Your task to perform on an android device: change notifications settings Image 0: 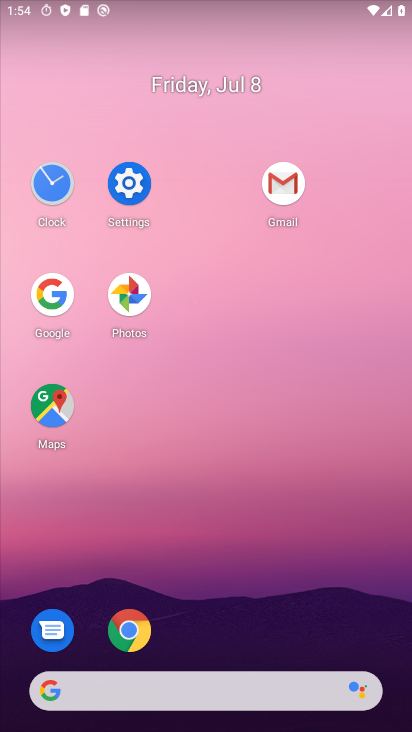
Step 0: click (122, 179)
Your task to perform on an android device: change notifications settings Image 1: 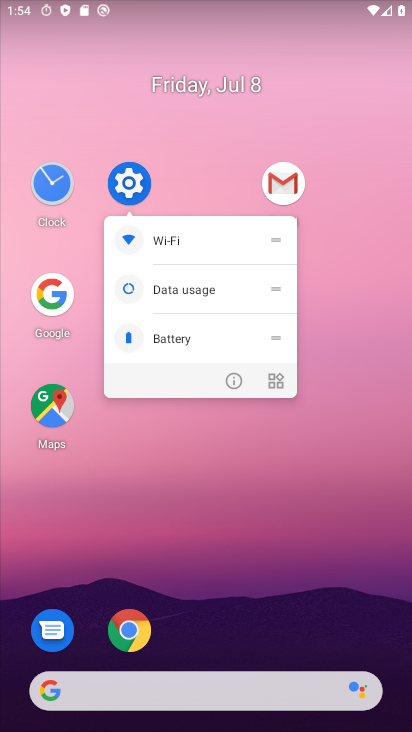
Step 1: click (131, 175)
Your task to perform on an android device: change notifications settings Image 2: 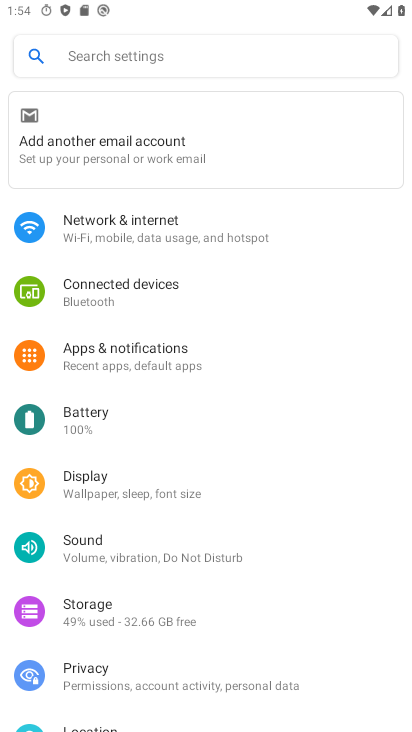
Step 2: click (224, 350)
Your task to perform on an android device: change notifications settings Image 3: 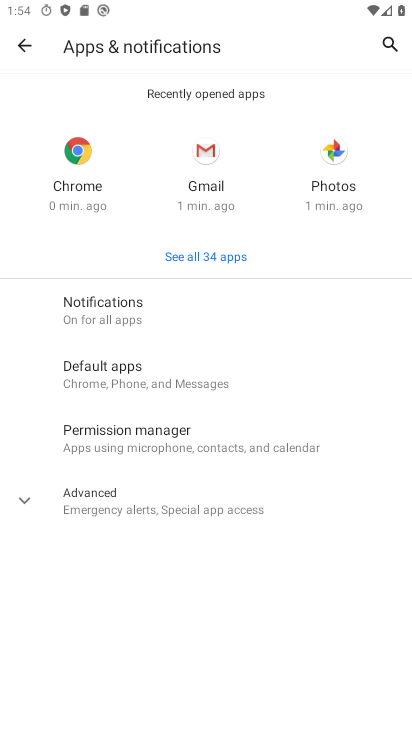
Step 3: click (305, 313)
Your task to perform on an android device: change notifications settings Image 4: 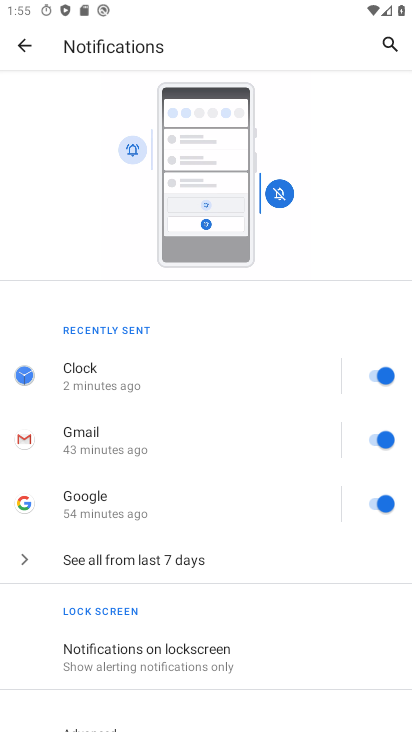
Step 4: drag from (162, 626) to (267, 303)
Your task to perform on an android device: change notifications settings Image 5: 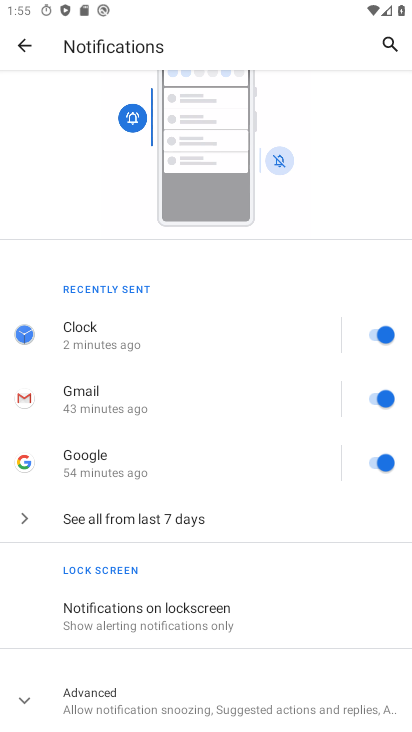
Step 5: click (184, 703)
Your task to perform on an android device: change notifications settings Image 6: 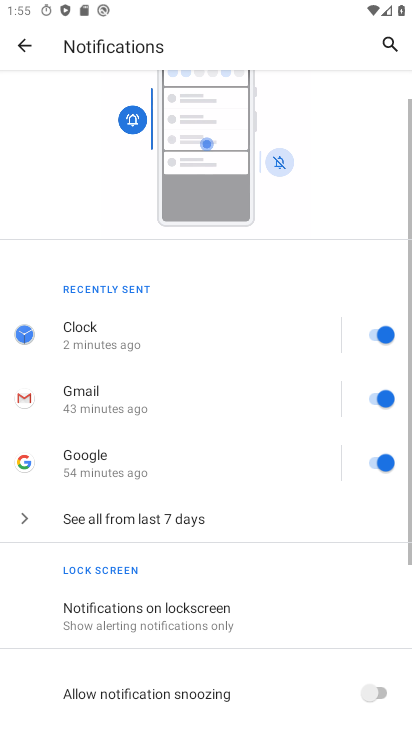
Step 6: drag from (316, 631) to (366, 209)
Your task to perform on an android device: change notifications settings Image 7: 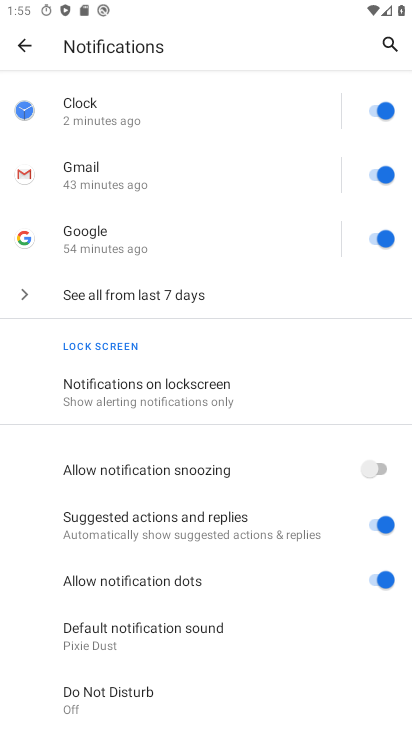
Step 7: click (374, 471)
Your task to perform on an android device: change notifications settings Image 8: 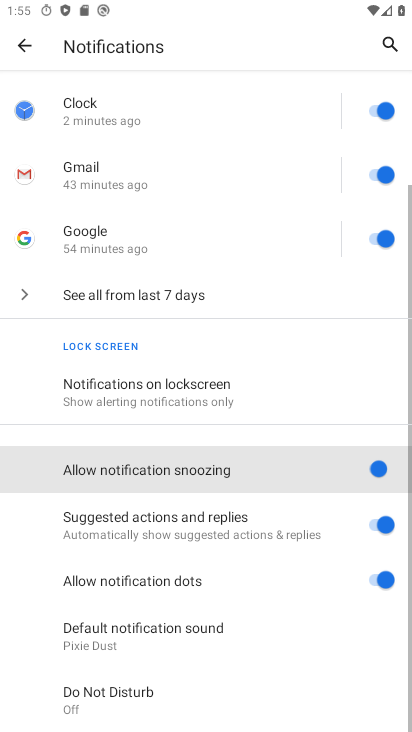
Step 8: click (392, 522)
Your task to perform on an android device: change notifications settings Image 9: 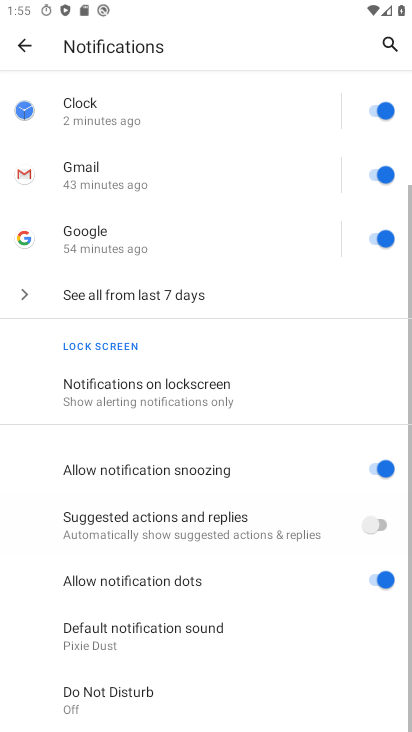
Step 9: click (387, 572)
Your task to perform on an android device: change notifications settings Image 10: 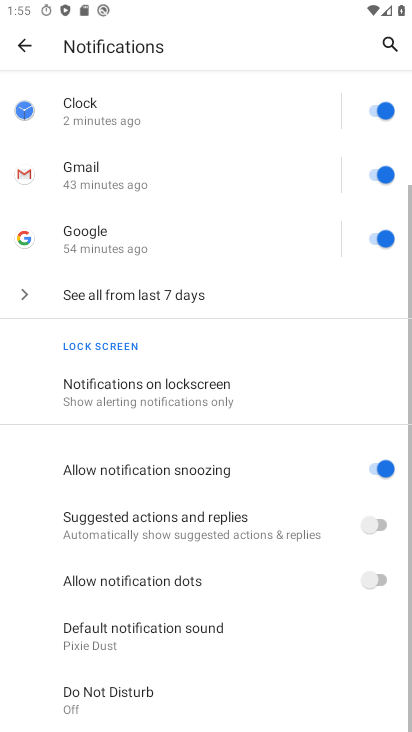
Step 10: task complete